Your task to perform on an android device: clear history in the chrome app Image 0: 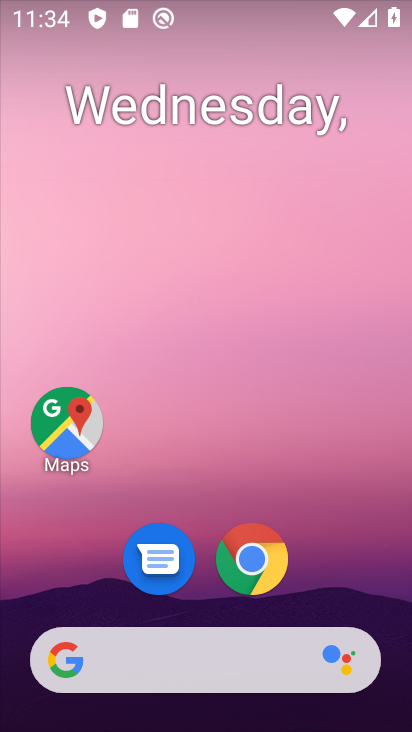
Step 0: click (251, 553)
Your task to perform on an android device: clear history in the chrome app Image 1: 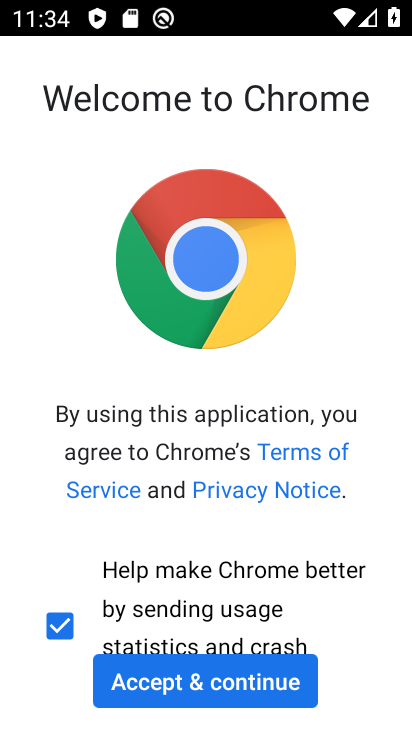
Step 1: click (274, 673)
Your task to perform on an android device: clear history in the chrome app Image 2: 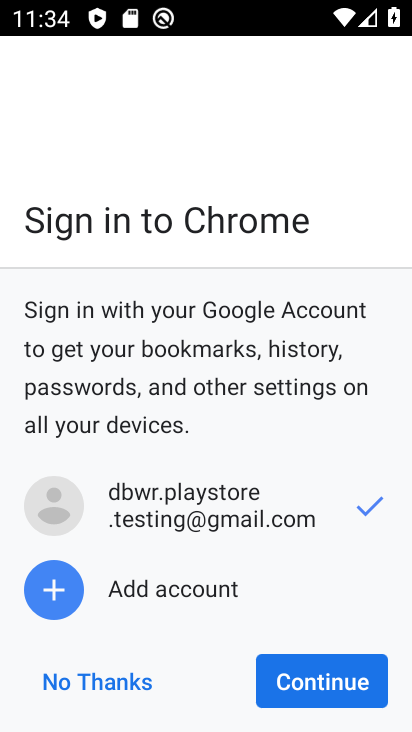
Step 2: click (315, 677)
Your task to perform on an android device: clear history in the chrome app Image 3: 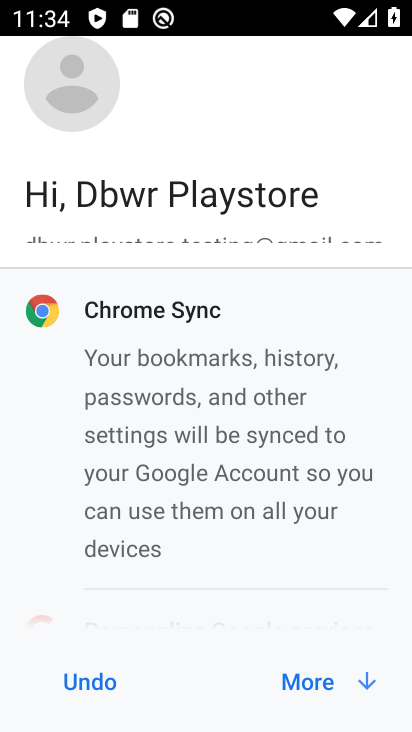
Step 3: click (315, 677)
Your task to perform on an android device: clear history in the chrome app Image 4: 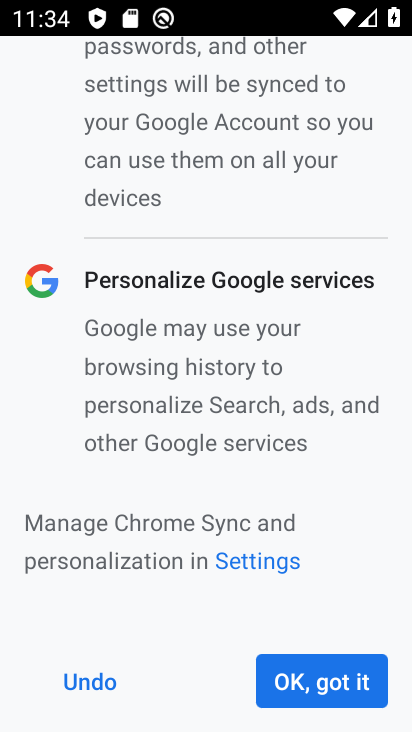
Step 4: click (315, 678)
Your task to perform on an android device: clear history in the chrome app Image 5: 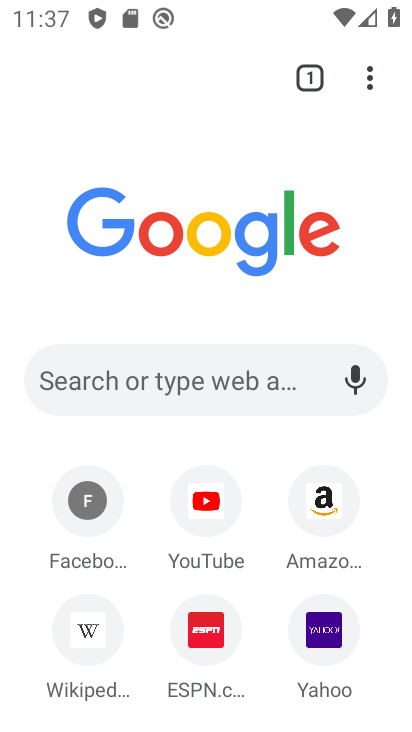
Step 5: click (369, 84)
Your task to perform on an android device: clear history in the chrome app Image 6: 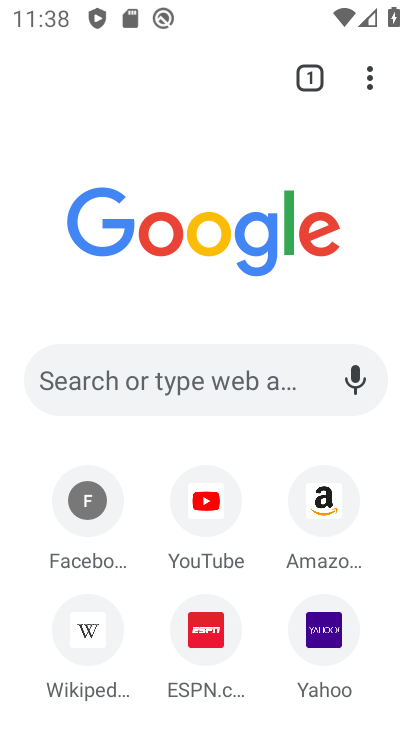
Step 6: click (369, 86)
Your task to perform on an android device: clear history in the chrome app Image 7: 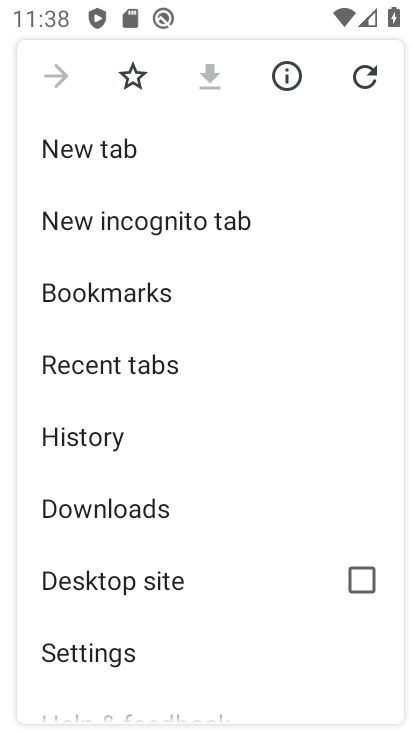
Step 7: click (111, 428)
Your task to perform on an android device: clear history in the chrome app Image 8: 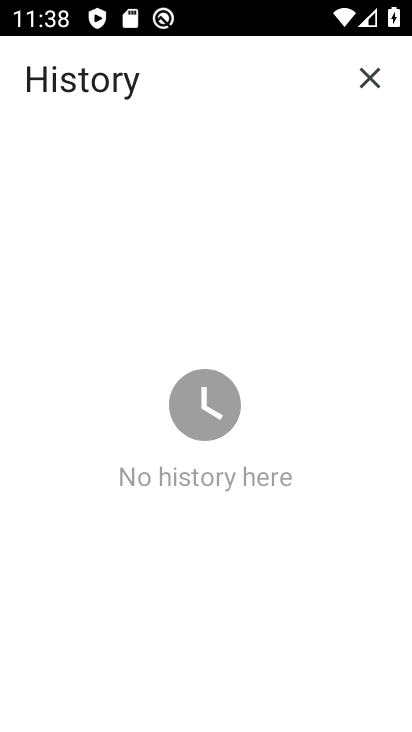
Step 8: task complete